Your task to perform on an android device: uninstall "Facebook Messenger" Image 0: 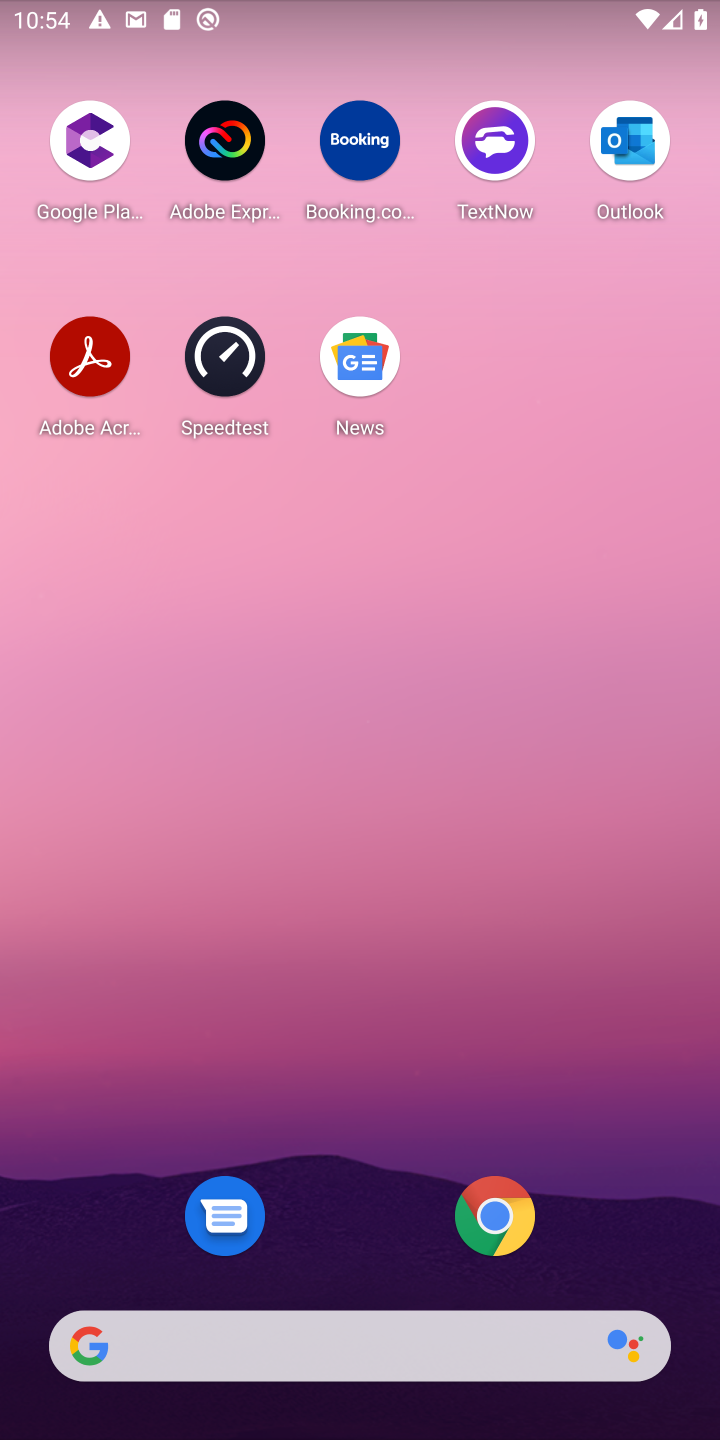
Step 0: press home button
Your task to perform on an android device: uninstall "Facebook Messenger" Image 1: 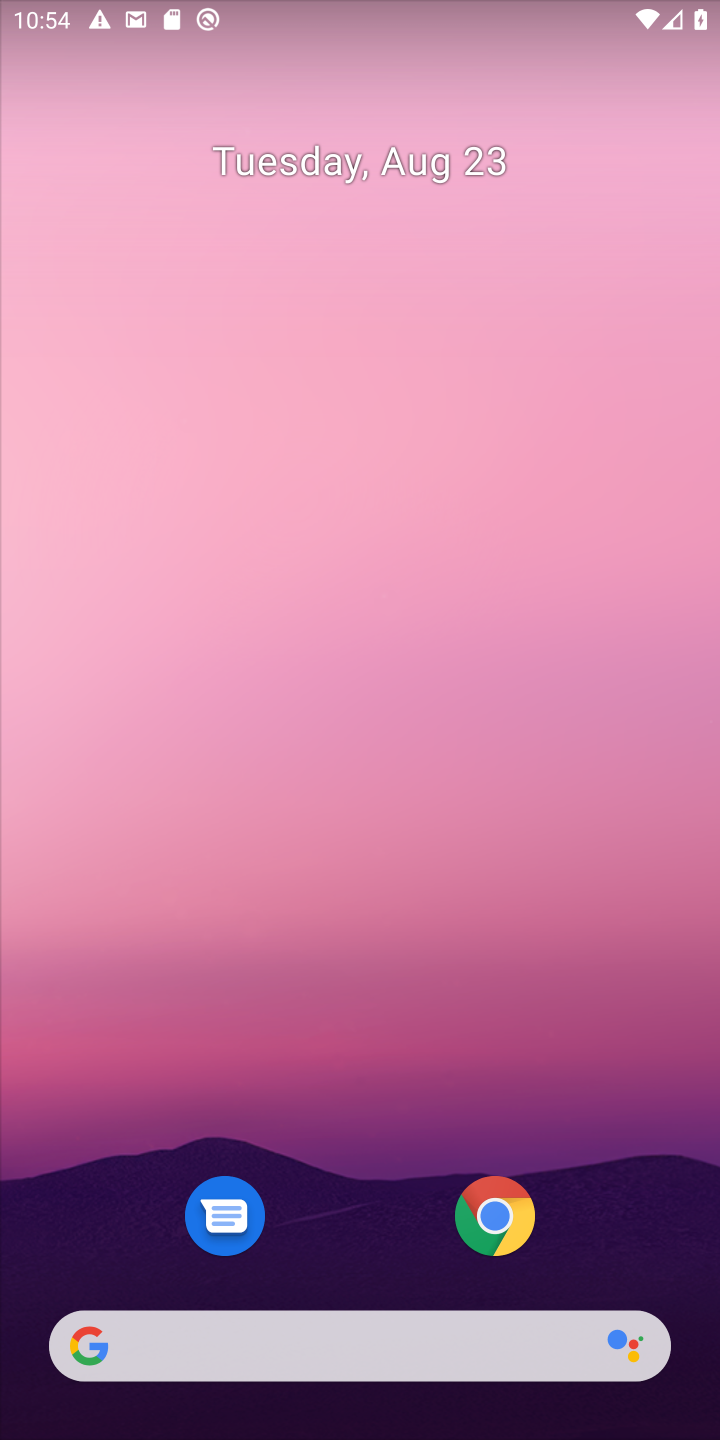
Step 1: drag from (293, 1355) to (512, 136)
Your task to perform on an android device: uninstall "Facebook Messenger" Image 2: 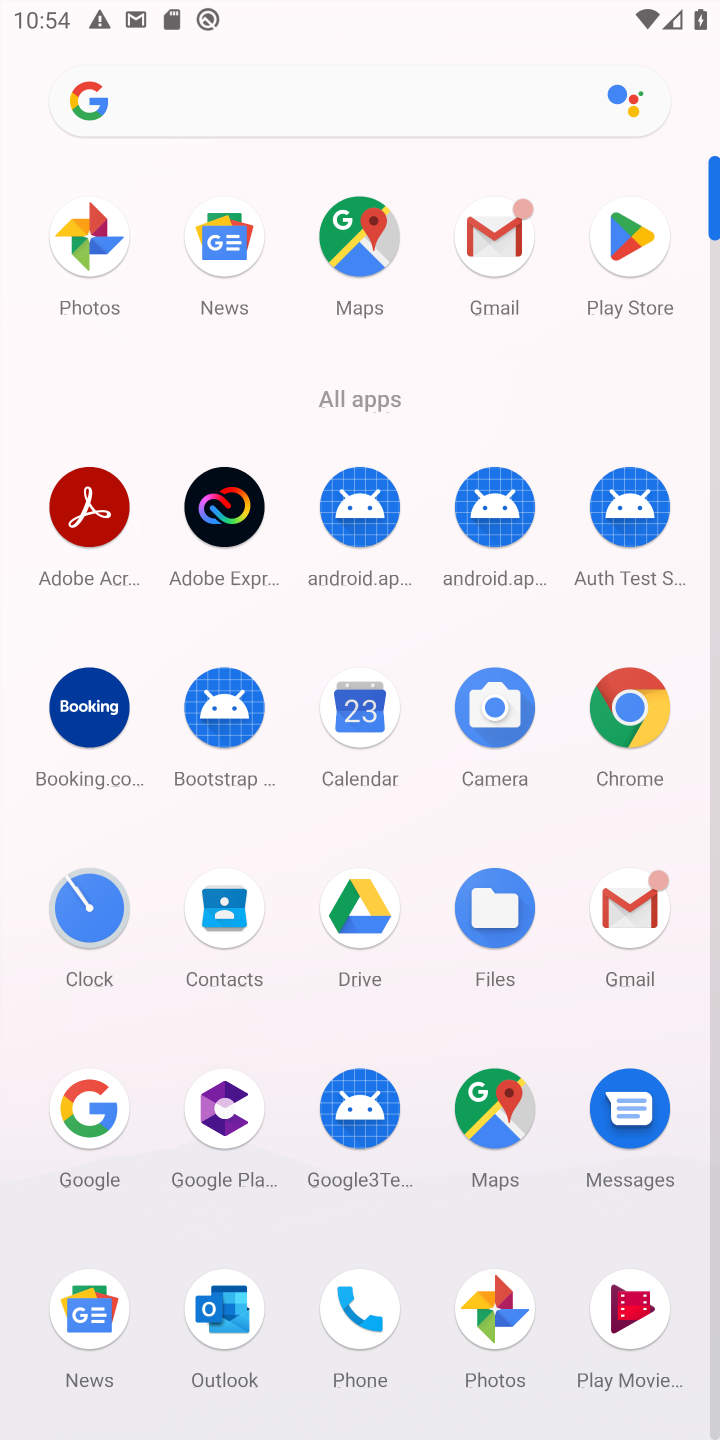
Step 2: click (629, 245)
Your task to perform on an android device: uninstall "Facebook Messenger" Image 3: 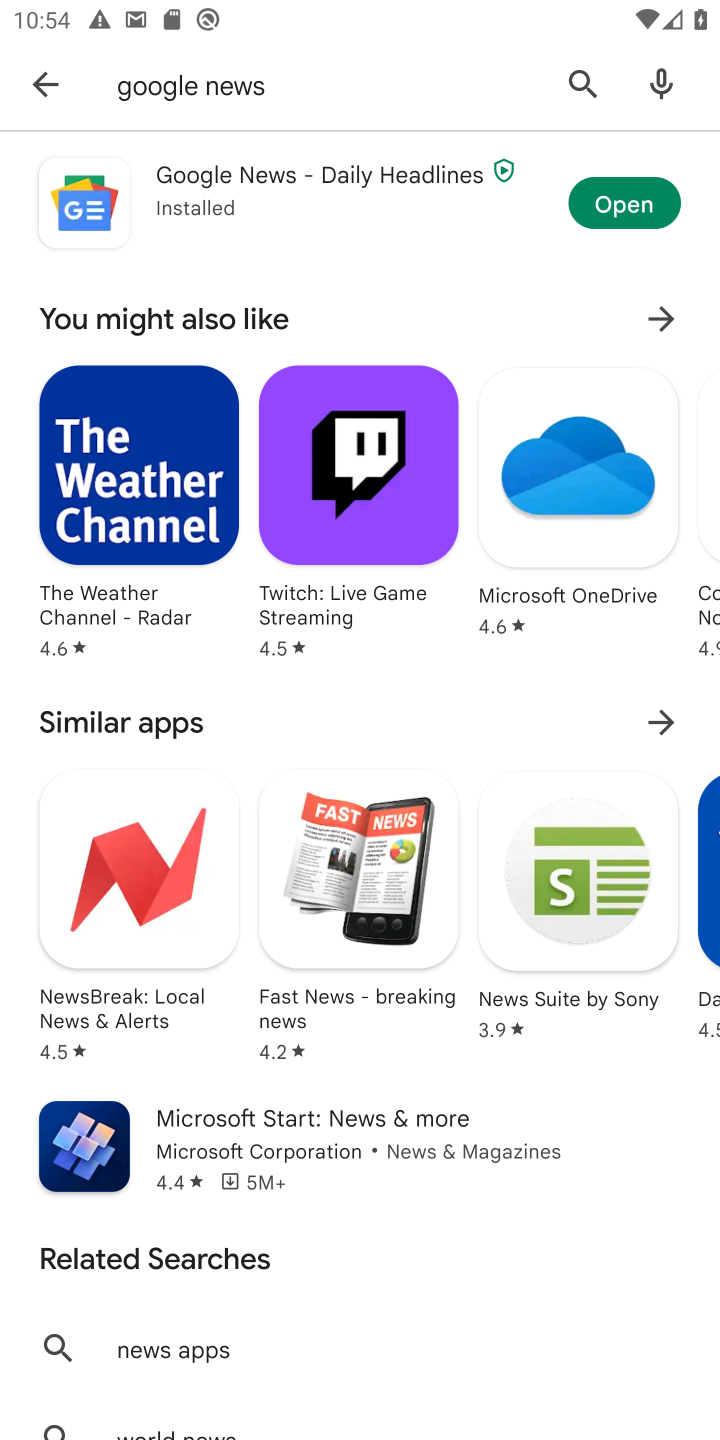
Step 3: press back button
Your task to perform on an android device: uninstall "Facebook Messenger" Image 4: 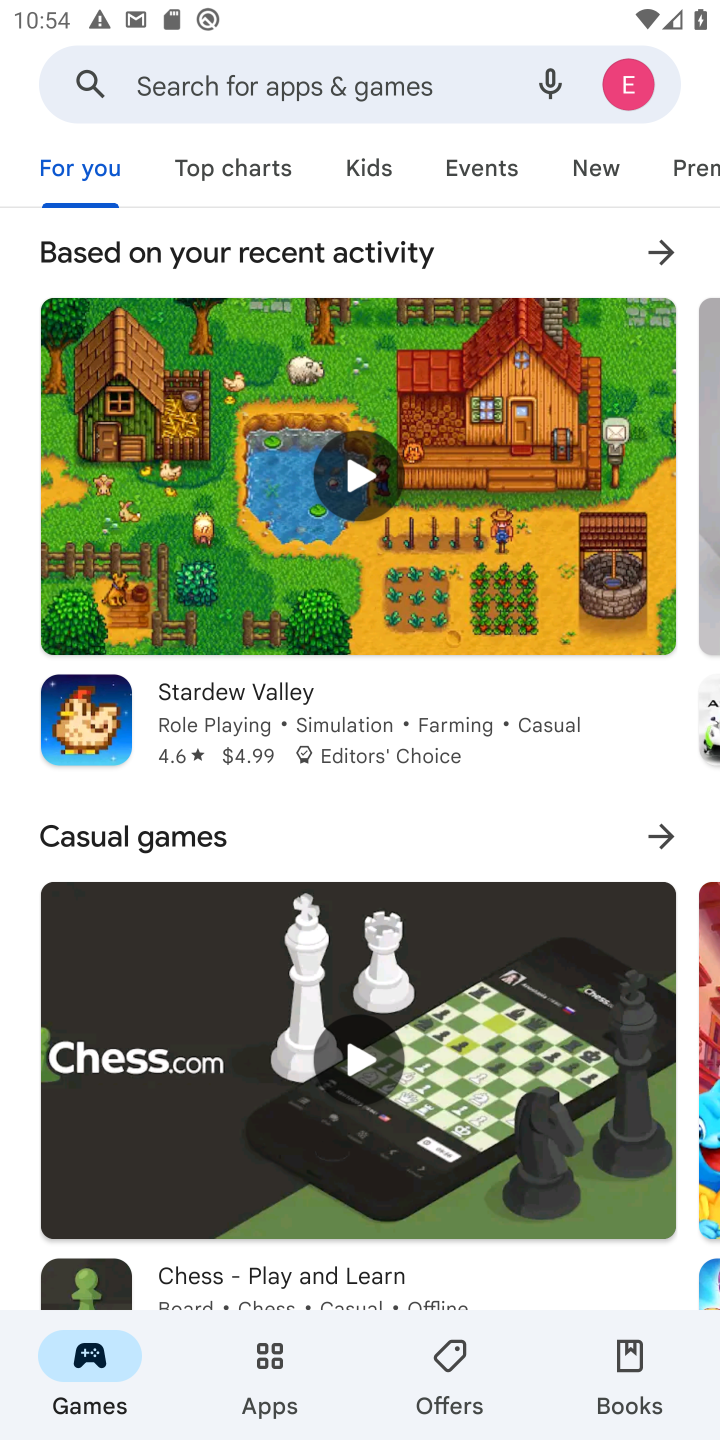
Step 4: click (424, 85)
Your task to perform on an android device: uninstall "Facebook Messenger" Image 5: 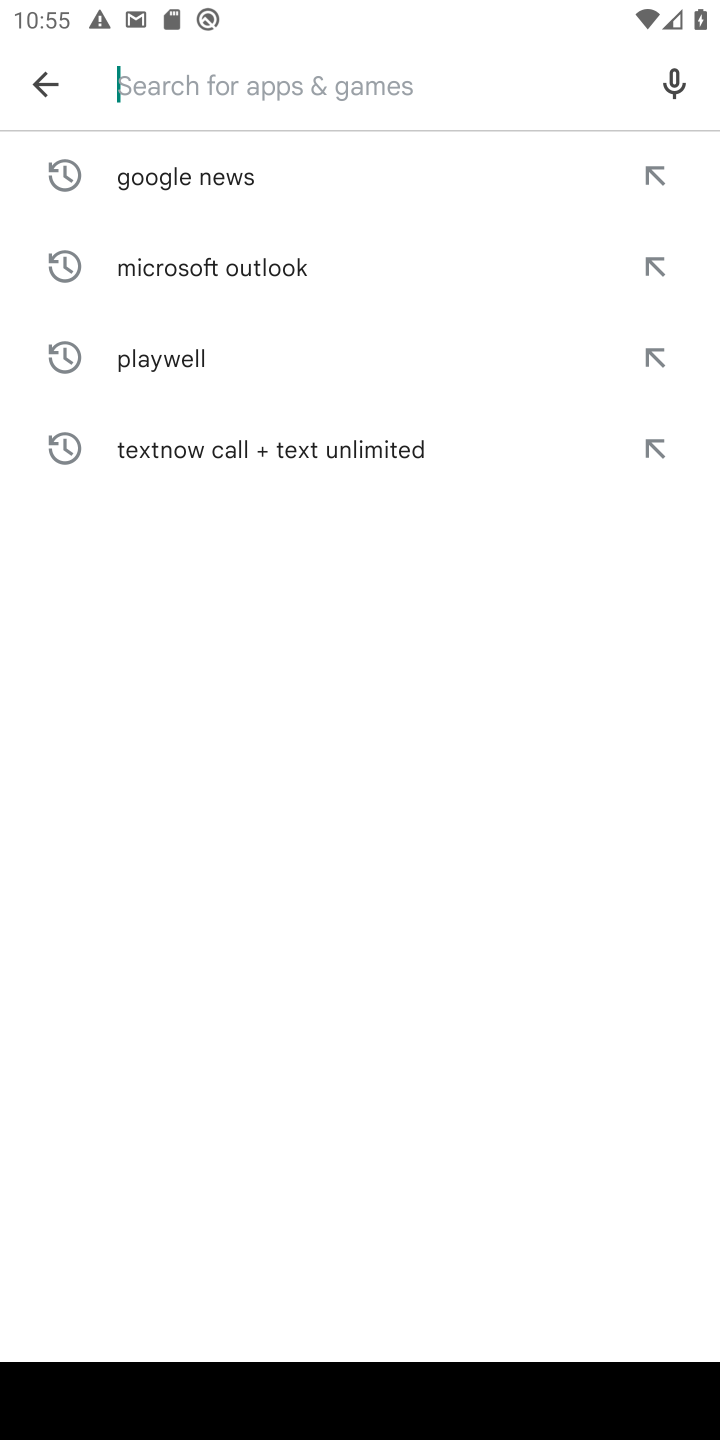
Step 5: type "Facebook Messenger"
Your task to perform on an android device: uninstall "Facebook Messenger" Image 6: 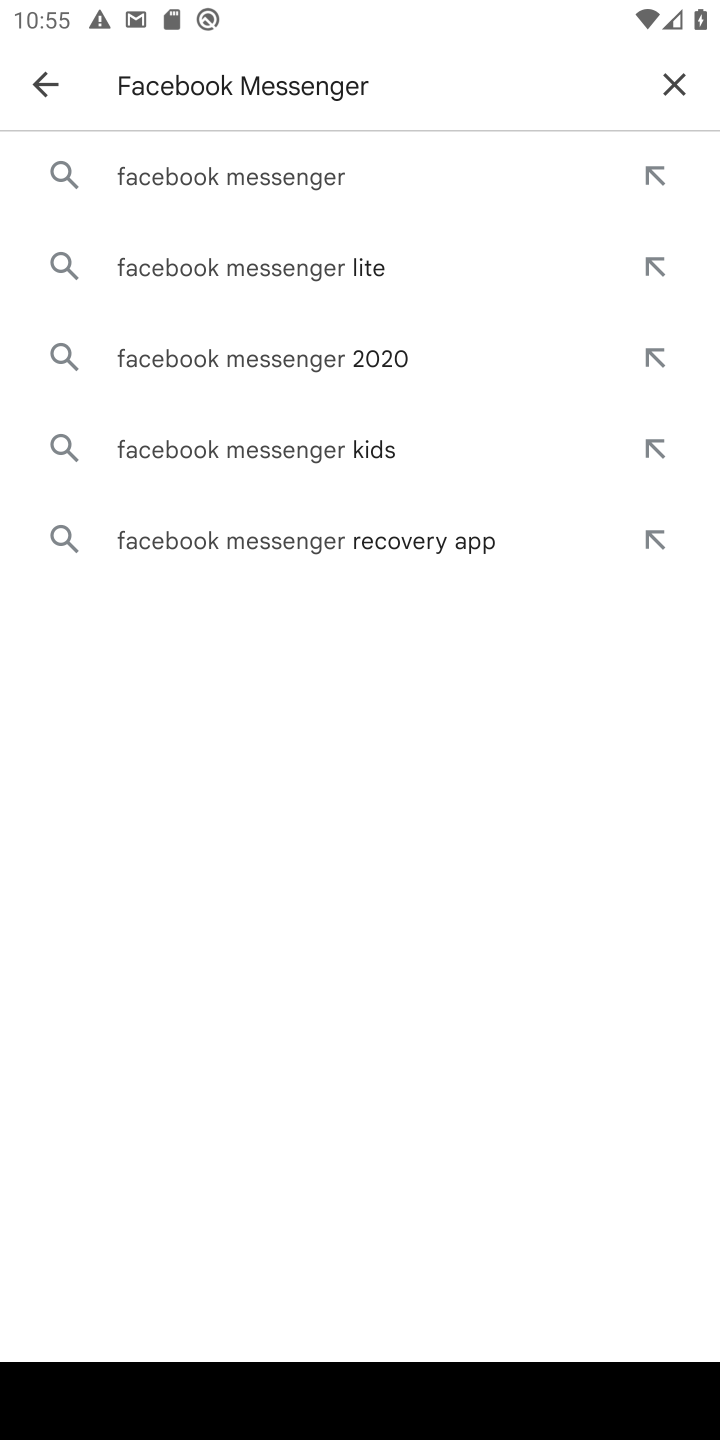
Step 6: click (155, 187)
Your task to perform on an android device: uninstall "Facebook Messenger" Image 7: 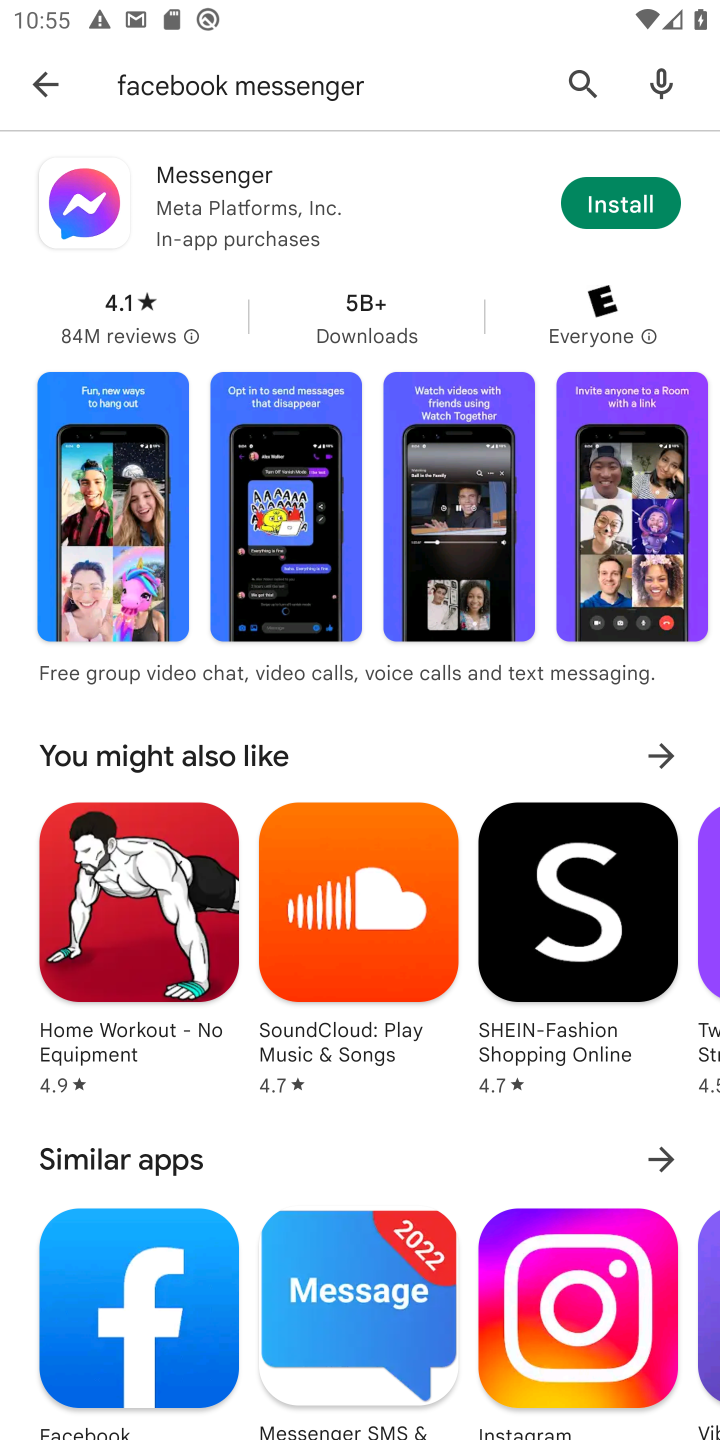
Step 7: task complete